Your task to perform on an android device: What's the weather going to be this weekend? Image 0: 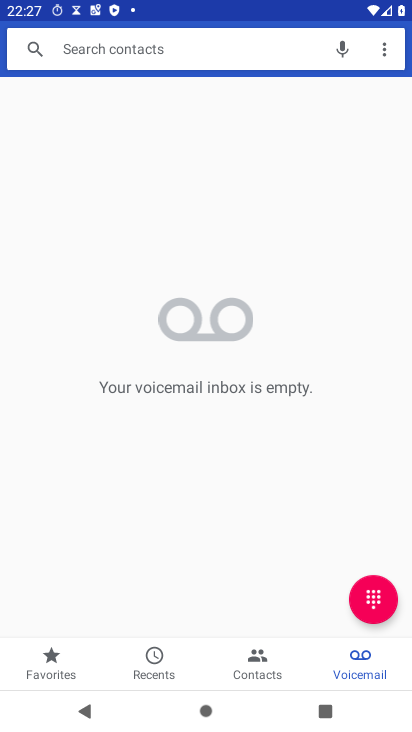
Step 0: press home button
Your task to perform on an android device: What's the weather going to be this weekend? Image 1: 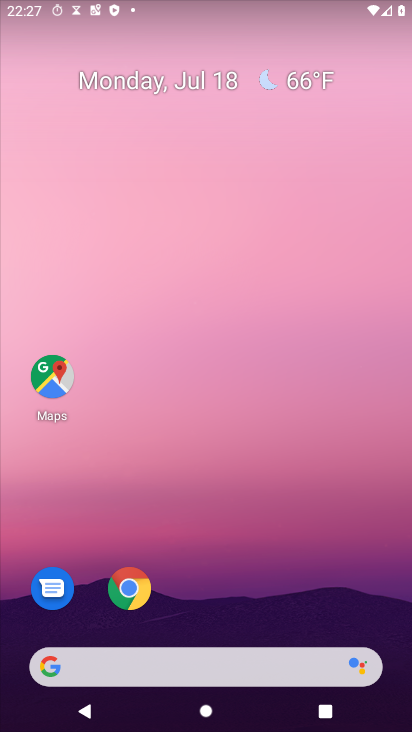
Step 1: click (115, 664)
Your task to perform on an android device: What's the weather going to be this weekend? Image 2: 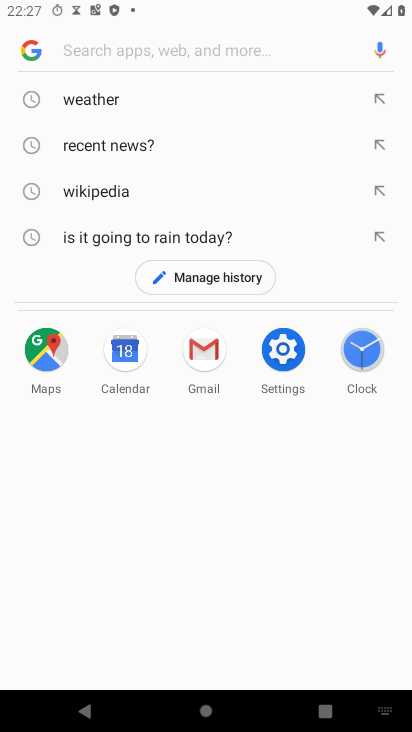
Step 2: click (104, 94)
Your task to perform on an android device: What's the weather going to be this weekend? Image 3: 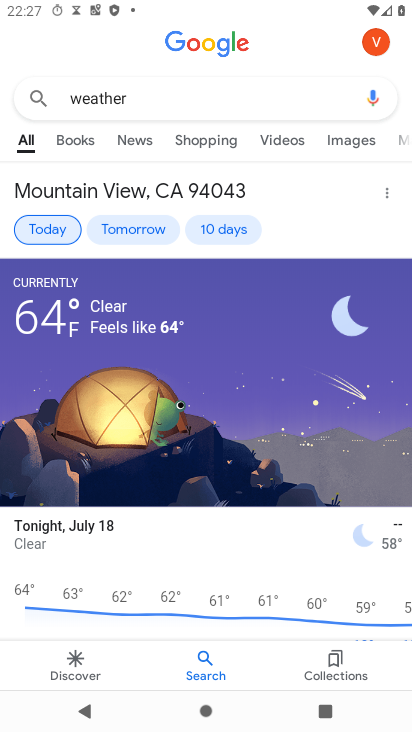
Step 3: click (207, 221)
Your task to perform on an android device: What's the weather going to be this weekend? Image 4: 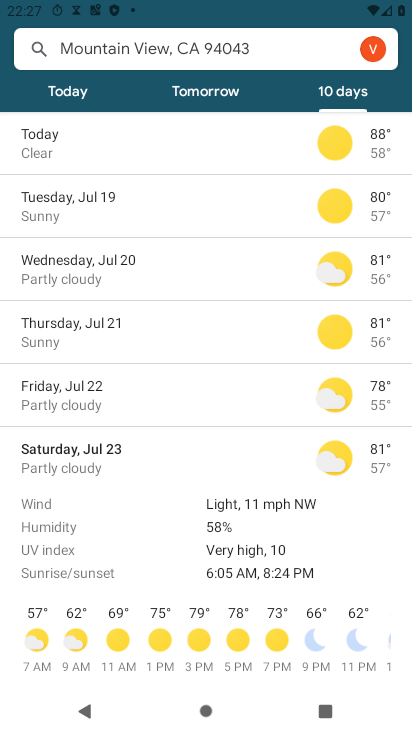
Step 4: task complete